Your task to perform on an android device: change notifications settings Image 0: 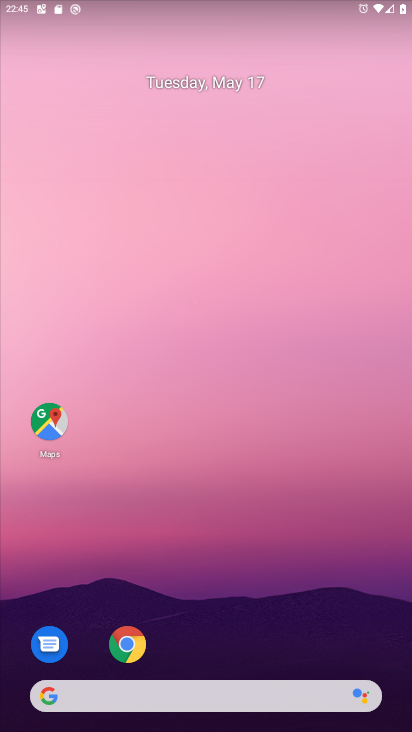
Step 0: press home button
Your task to perform on an android device: change notifications settings Image 1: 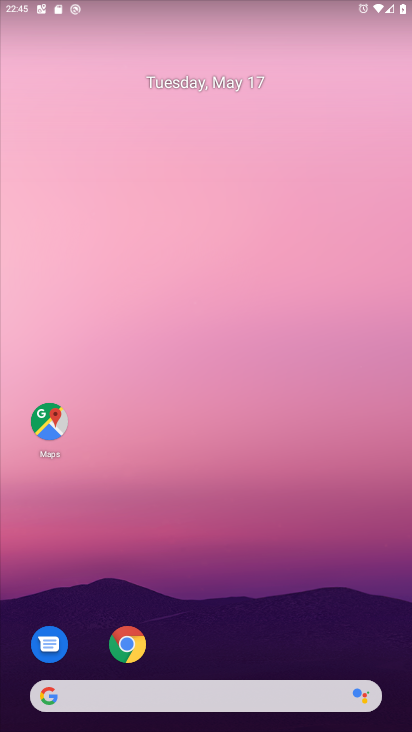
Step 1: drag from (225, 650) to (229, 399)
Your task to perform on an android device: change notifications settings Image 2: 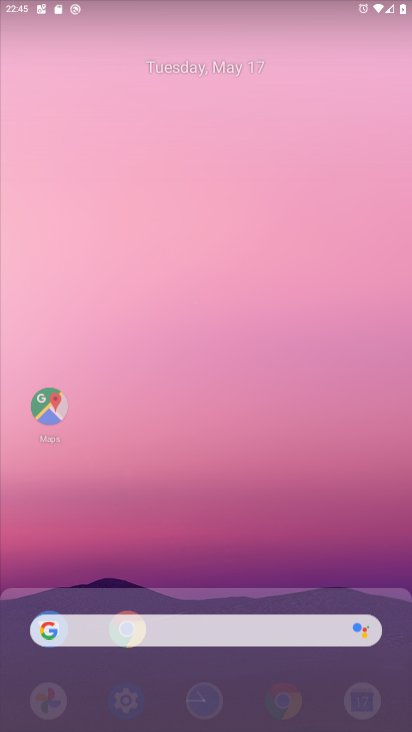
Step 2: drag from (231, 61) to (230, 12)
Your task to perform on an android device: change notifications settings Image 3: 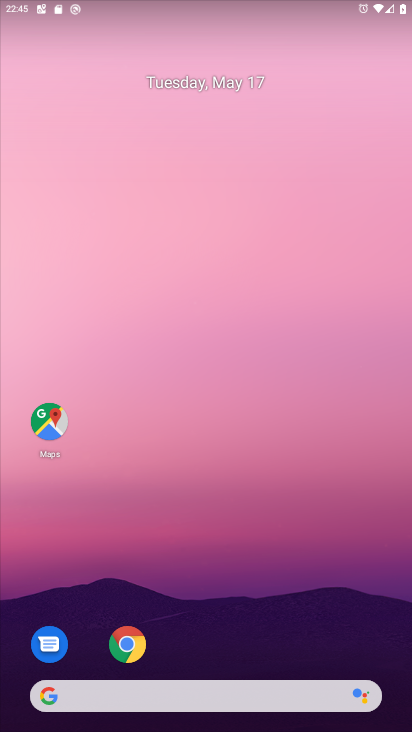
Step 3: drag from (211, 650) to (216, 43)
Your task to perform on an android device: change notifications settings Image 4: 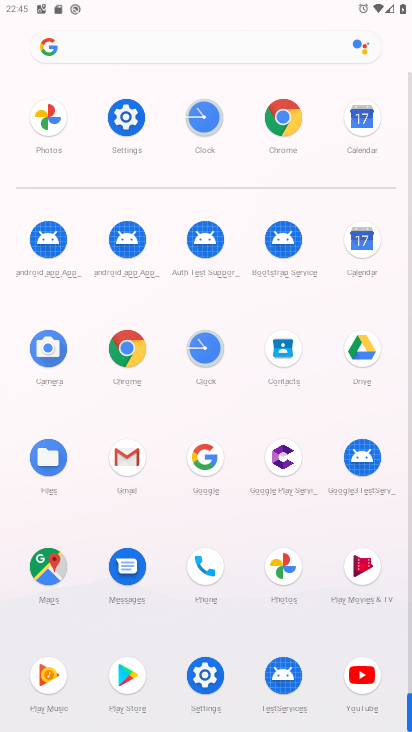
Step 4: click (123, 117)
Your task to perform on an android device: change notifications settings Image 5: 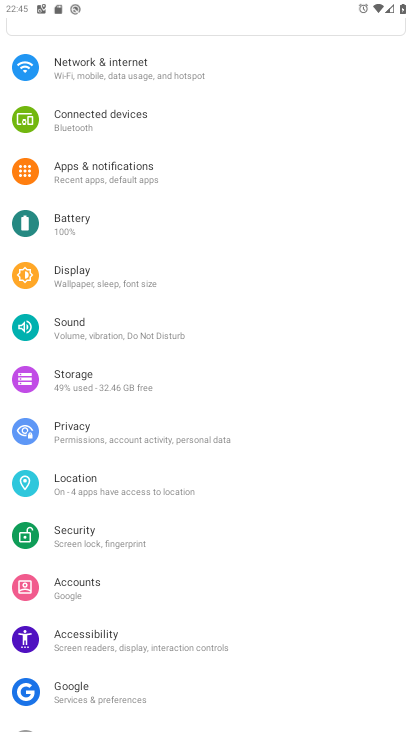
Step 5: click (167, 166)
Your task to perform on an android device: change notifications settings Image 6: 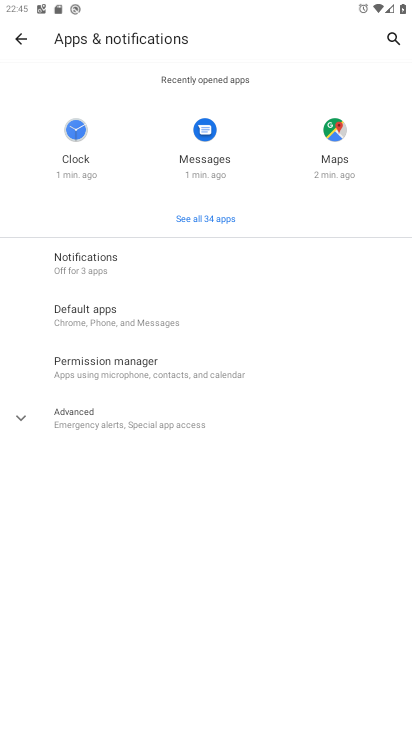
Step 6: click (19, 410)
Your task to perform on an android device: change notifications settings Image 7: 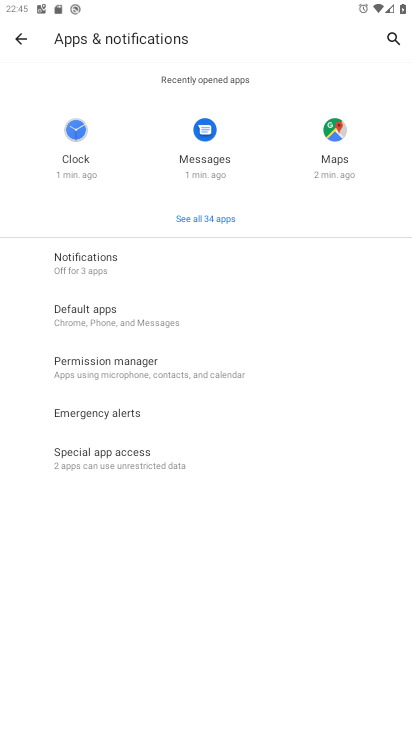
Step 7: click (130, 261)
Your task to perform on an android device: change notifications settings Image 8: 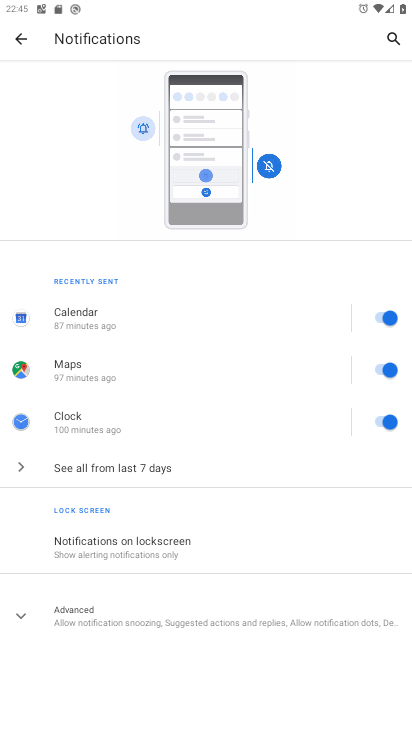
Step 8: click (20, 607)
Your task to perform on an android device: change notifications settings Image 9: 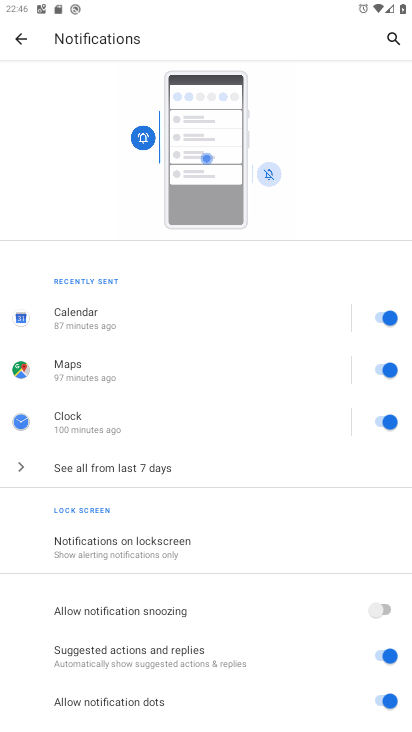
Step 9: drag from (241, 655) to (239, 576)
Your task to perform on an android device: change notifications settings Image 10: 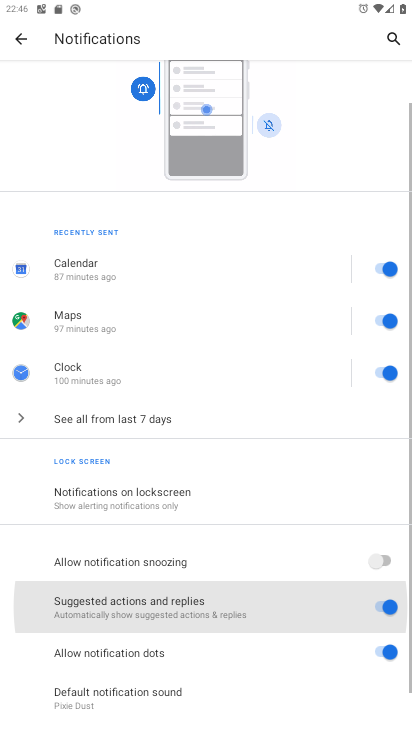
Step 10: drag from (237, 253) to (237, 148)
Your task to perform on an android device: change notifications settings Image 11: 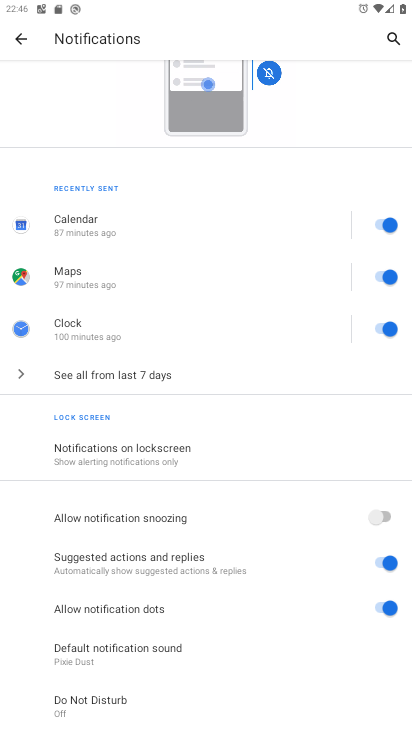
Step 11: drag from (227, 673) to (271, 142)
Your task to perform on an android device: change notifications settings Image 12: 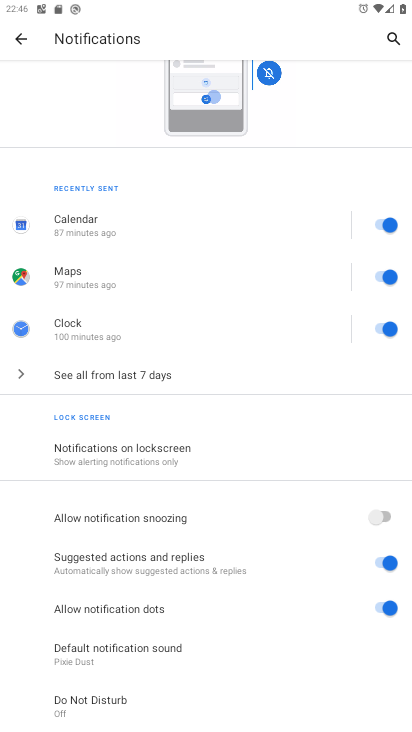
Step 12: click (382, 219)
Your task to perform on an android device: change notifications settings Image 13: 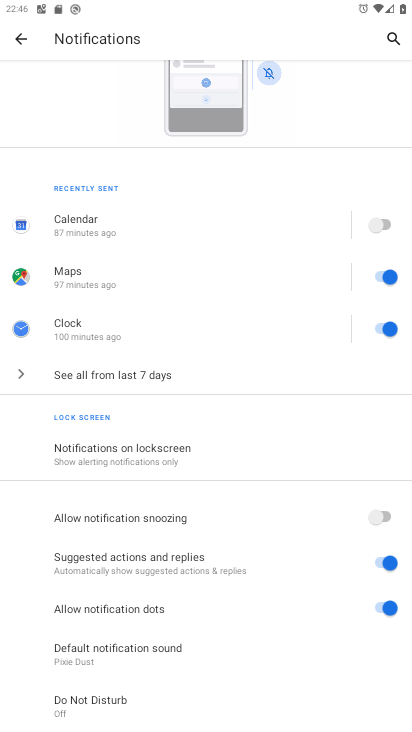
Step 13: click (385, 272)
Your task to perform on an android device: change notifications settings Image 14: 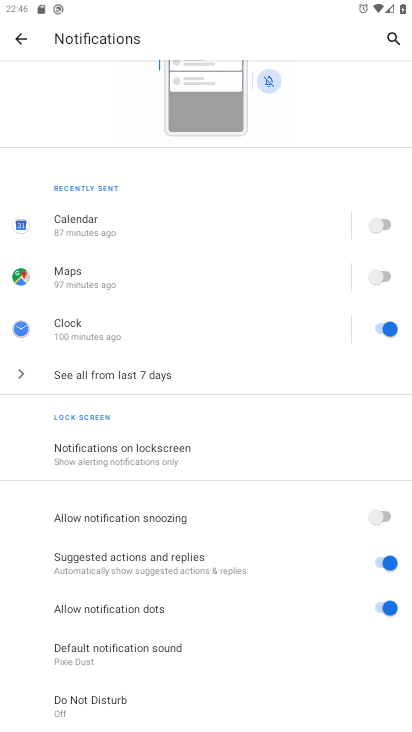
Step 14: click (385, 328)
Your task to perform on an android device: change notifications settings Image 15: 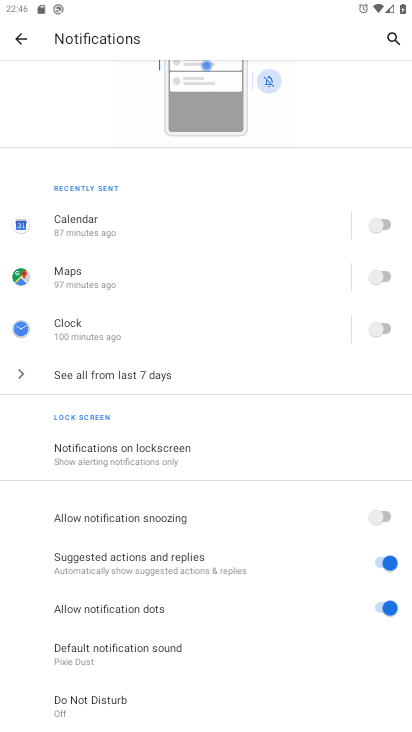
Step 15: click (390, 555)
Your task to perform on an android device: change notifications settings Image 16: 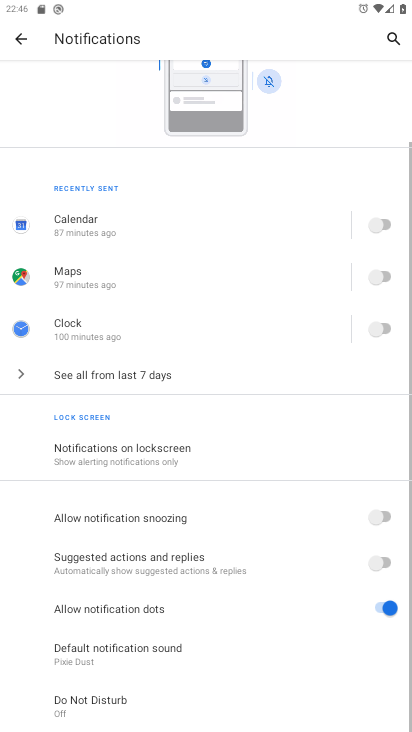
Step 16: click (388, 609)
Your task to perform on an android device: change notifications settings Image 17: 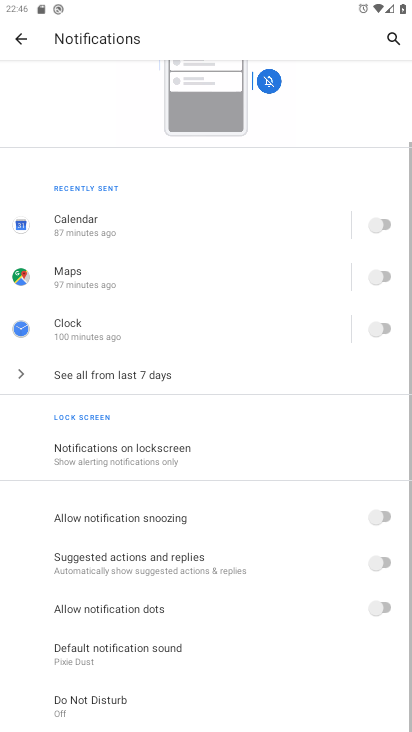
Step 17: task complete